Your task to perform on an android device: turn pop-ups on in chrome Image 0: 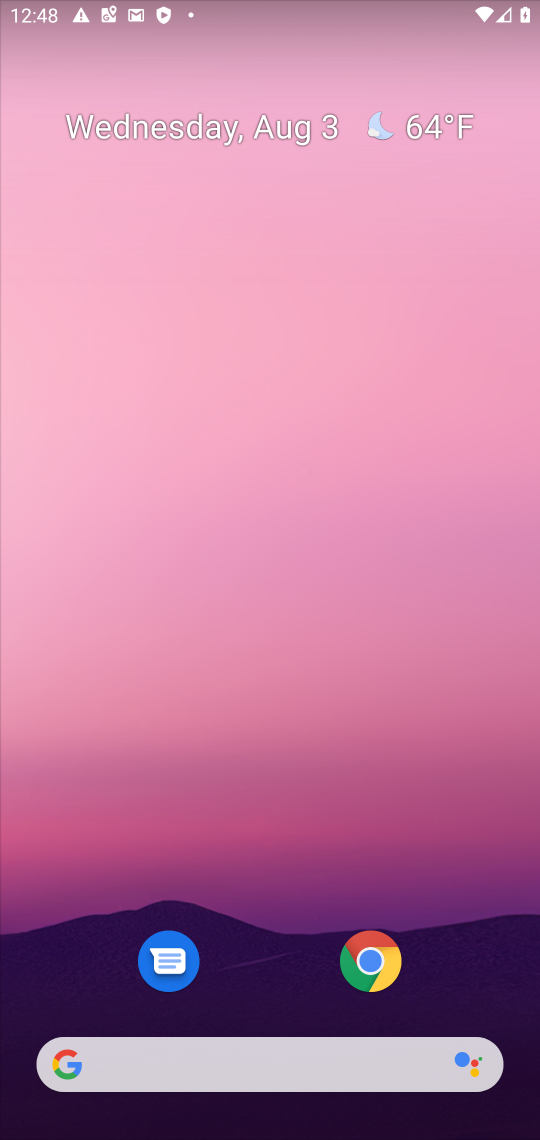
Step 0: click (382, 963)
Your task to perform on an android device: turn pop-ups on in chrome Image 1: 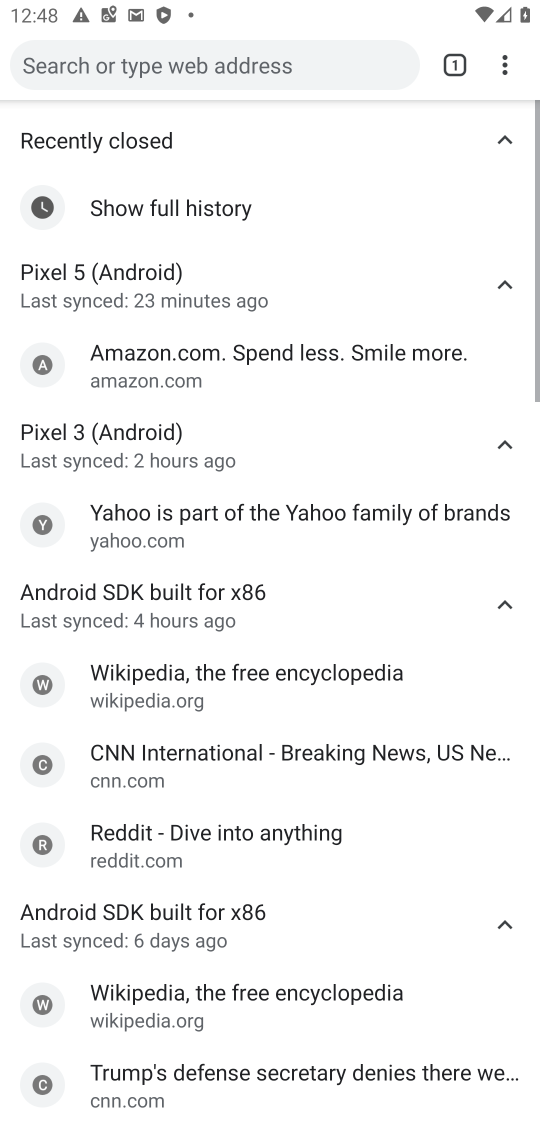
Step 1: drag from (509, 59) to (296, 549)
Your task to perform on an android device: turn pop-ups on in chrome Image 2: 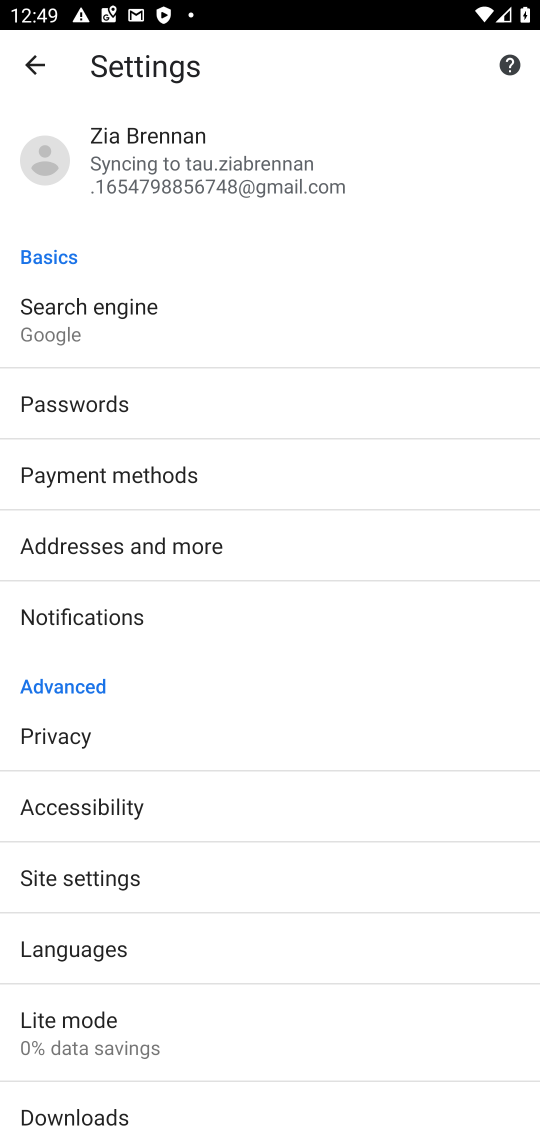
Step 2: click (87, 883)
Your task to perform on an android device: turn pop-ups on in chrome Image 3: 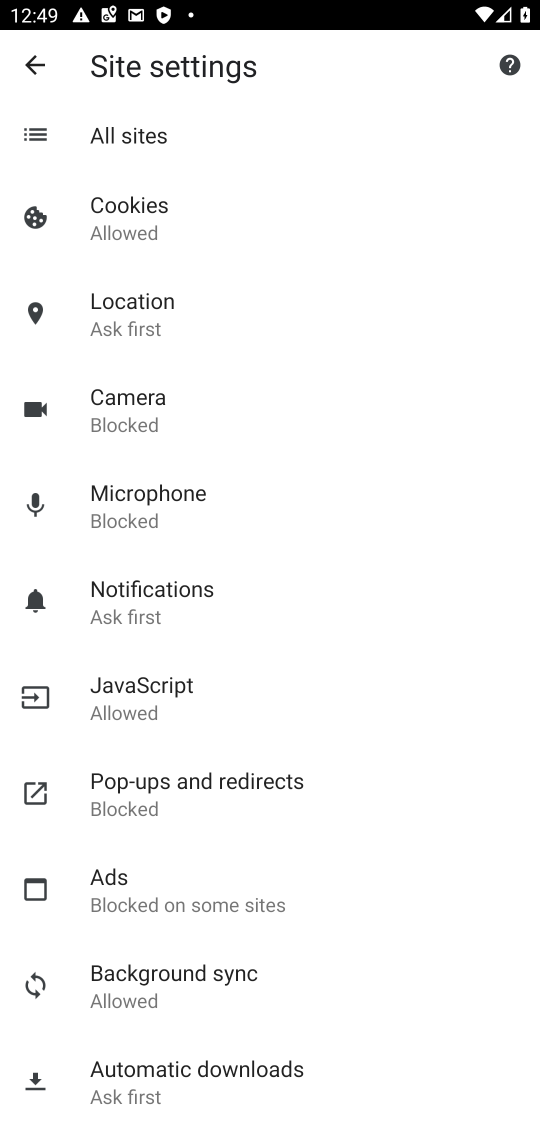
Step 3: click (138, 809)
Your task to perform on an android device: turn pop-ups on in chrome Image 4: 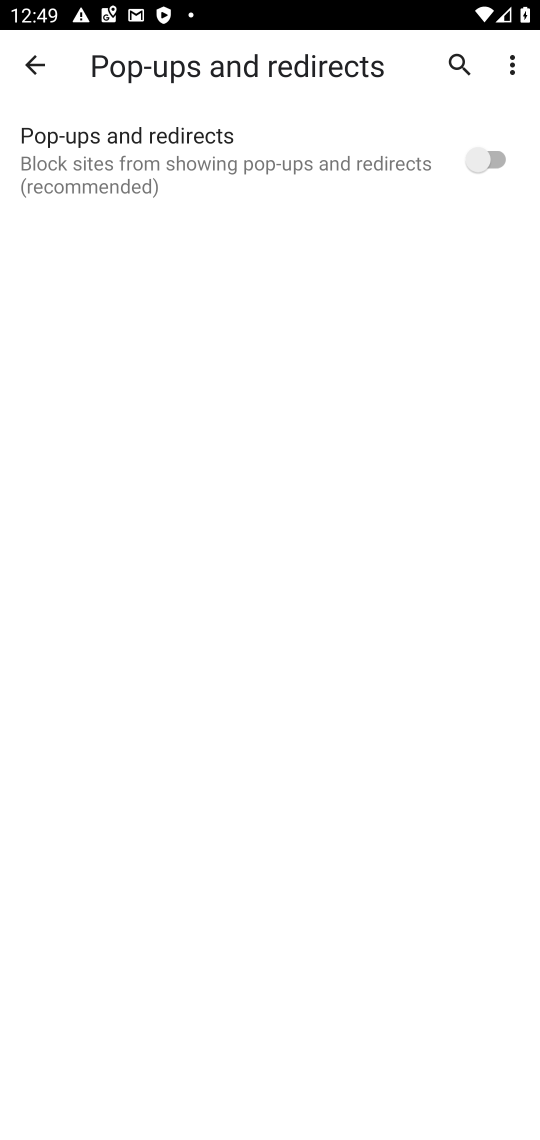
Step 4: click (478, 150)
Your task to perform on an android device: turn pop-ups on in chrome Image 5: 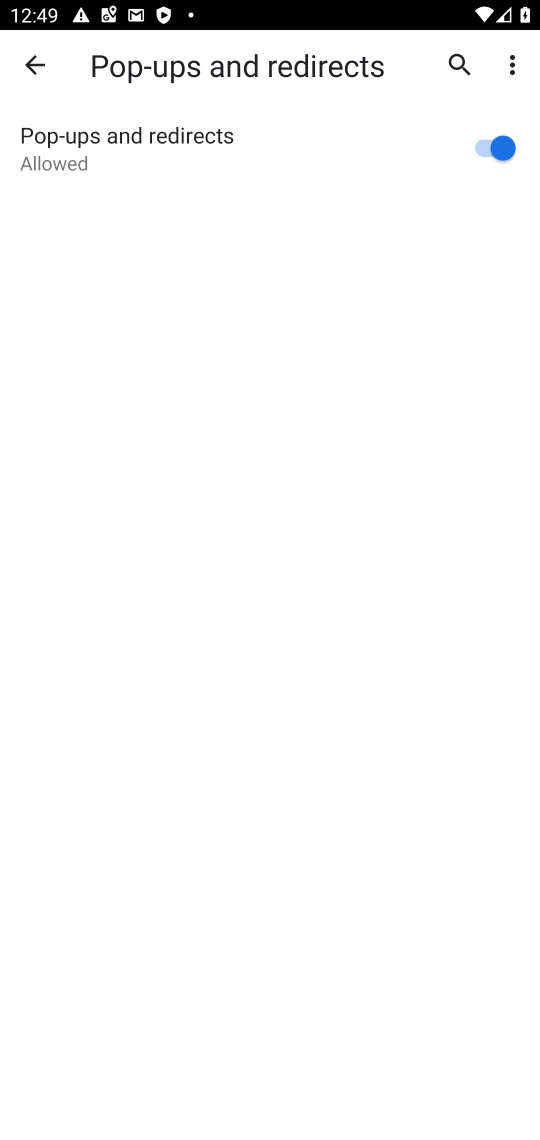
Step 5: task complete